Your task to perform on an android device: turn on improve location accuracy Image 0: 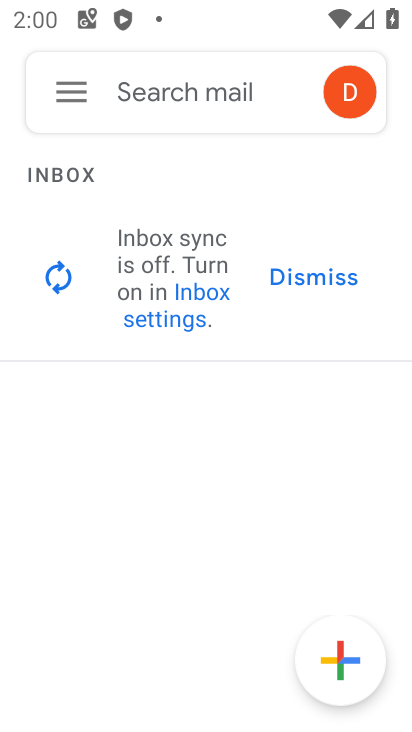
Step 0: press home button
Your task to perform on an android device: turn on improve location accuracy Image 1: 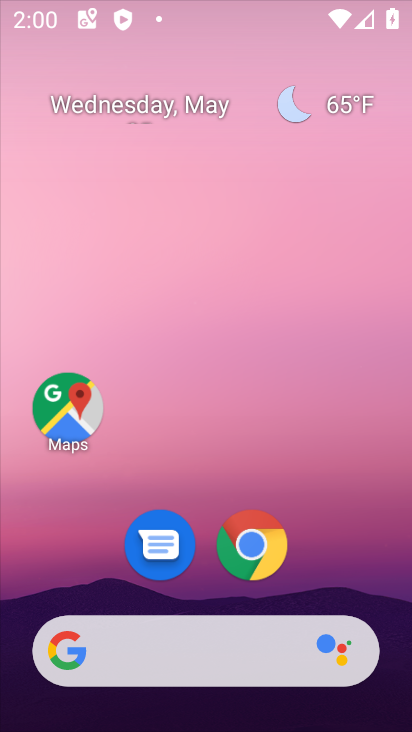
Step 1: drag from (323, 448) to (210, 35)
Your task to perform on an android device: turn on improve location accuracy Image 2: 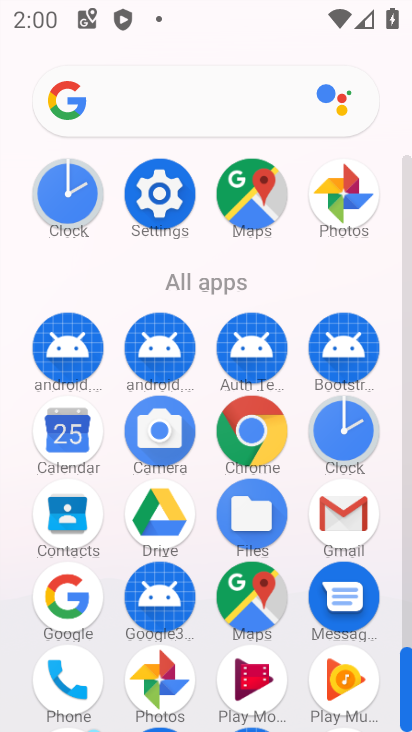
Step 2: click (173, 210)
Your task to perform on an android device: turn on improve location accuracy Image 3: 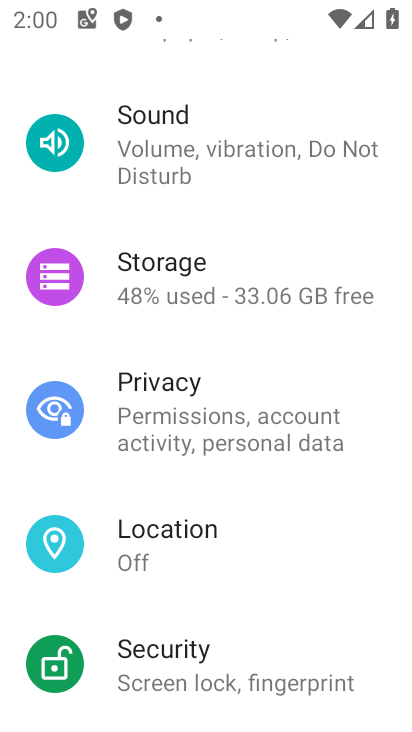
Step 3: click (253, 566)
Your task to perform on an android device: turn on improve location accuracy Image 4: 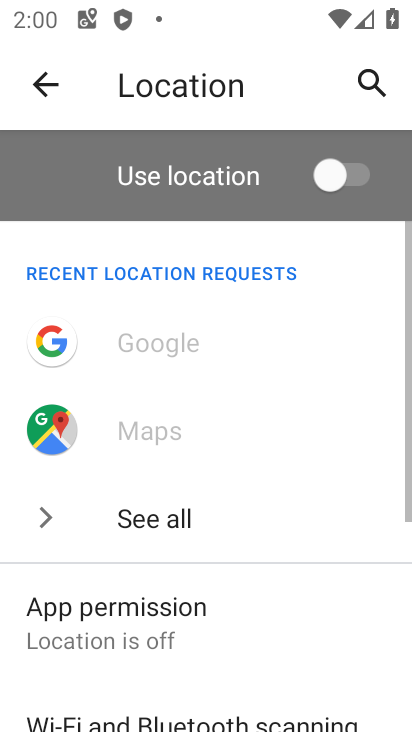
Step 4: drag from (264, 631) to (264, 108)
Your task to perform on an android device: turn on improve location accuracy Image 5: 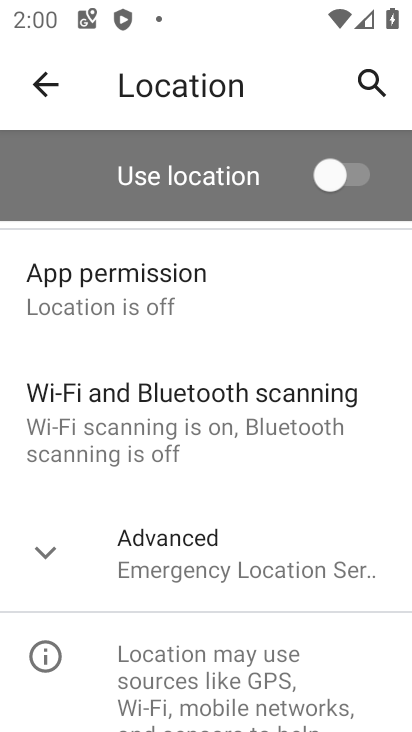
Step 5: click (281, 561)
Your task to perform on an android device: turn on improve location accuracy Image 6: 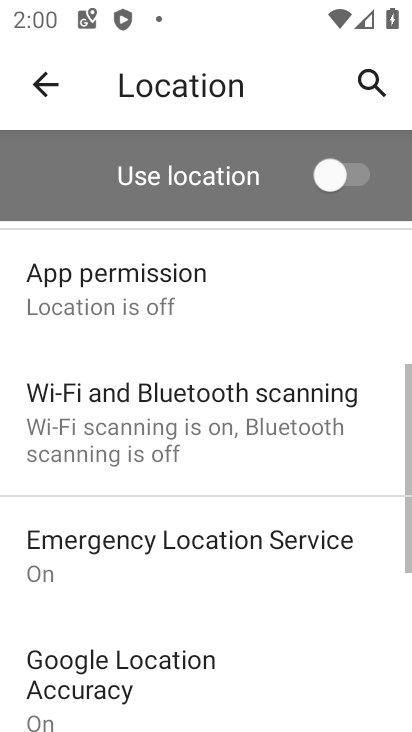
Step 6: drag from (252, 602) to (248, 196)
Your task to perform on an android device: turn on improve location accuracy Image 7: 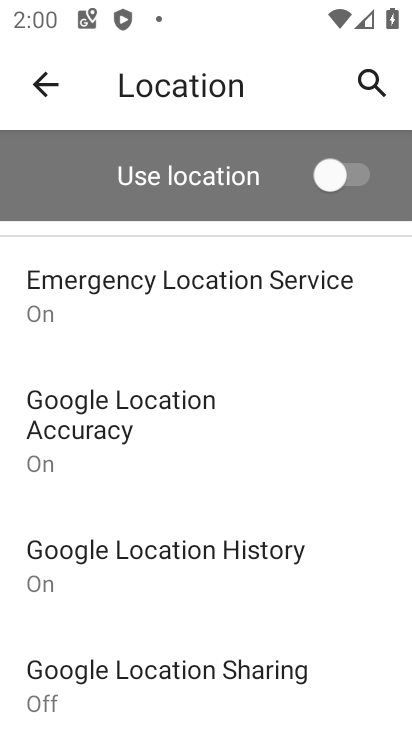
Step 7: click (239, 548)
Your task to perform on an android device: turn on improve location accuracy Image 8: 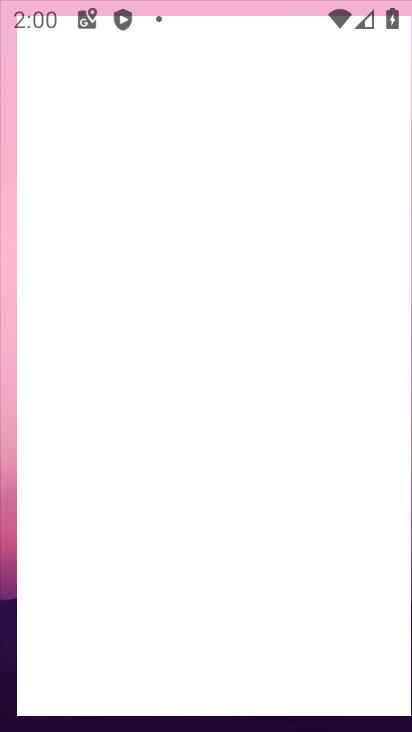
Step 8: click (209, 432)
Your task to perform on an android device: turn on improve location accuracy Image 9: 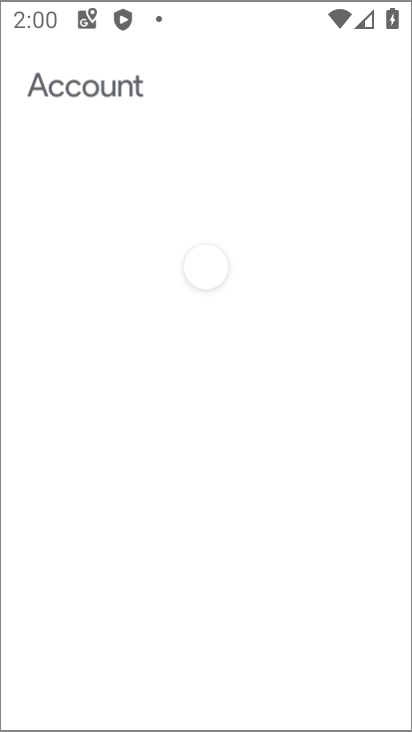
Step 9: click (38, 72)
Your task to perform on an android device: turn on improve location accuracy Image 10: 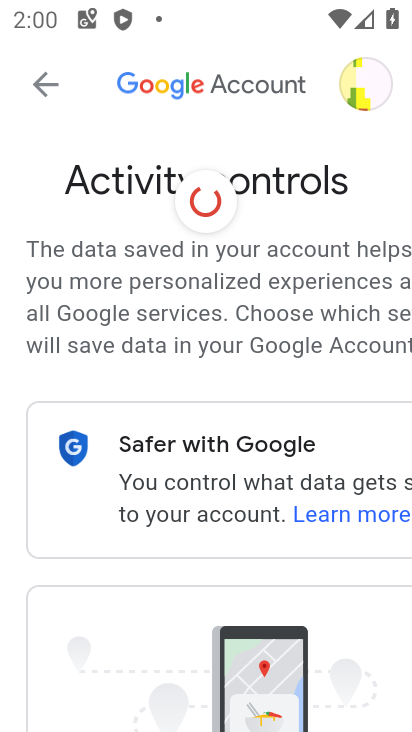
Step 10: click (54, 79)
Your task to perform on an android device: turn on improve location accuracy Image 11: 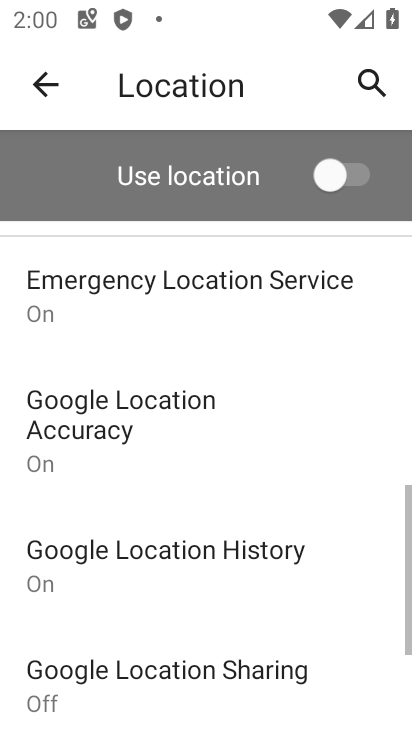
Step 11: click (230, 454)
Your task to perform on an android device: turn on improve location accuracy Image 12: 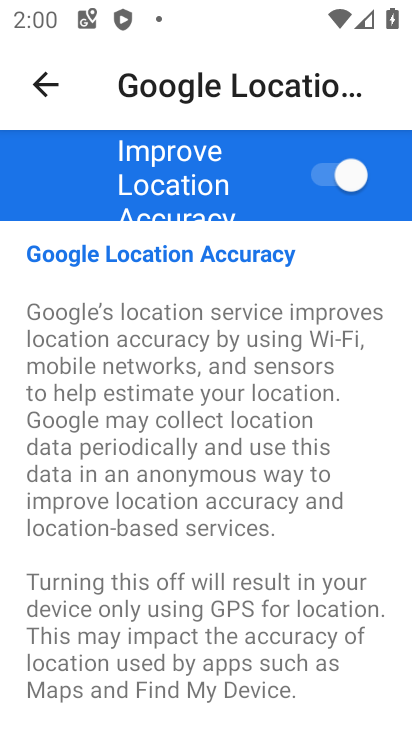
Step 12: task complete